Your task to perform on an android device: check battery use Image 0: 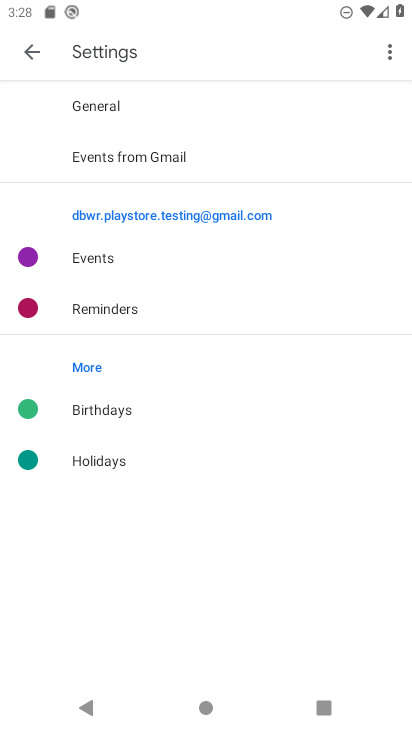
Step 0: press home button
Your task to perform on an android device: check battery use Image 1: 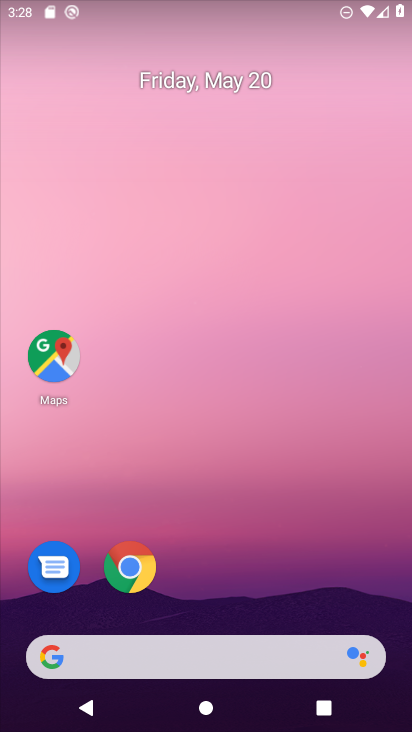
Step 1: drag from (216, 724) to (219, 186)
Your task to perform on an android device: check battery use Image 2: 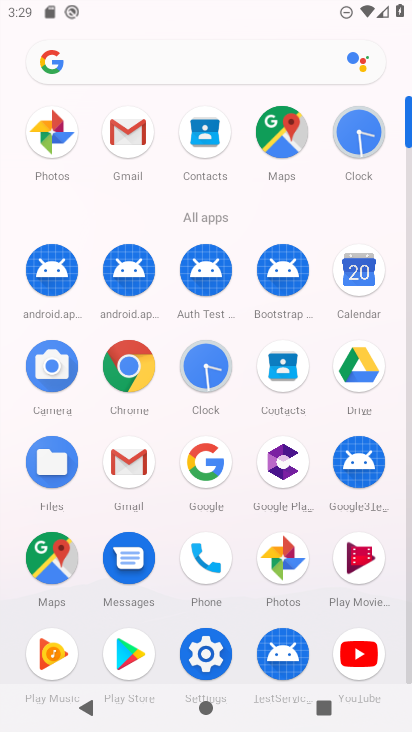
Step 2: click (207, 646)
Your task to perform on an android device: check battery use Image 3: 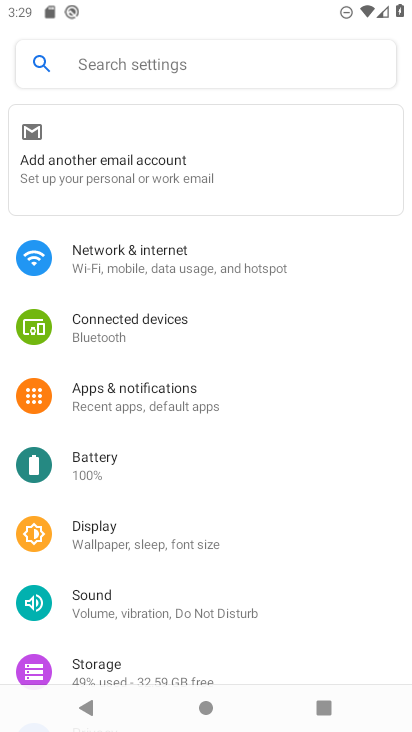
Step 3: click (88, 470)
Your task to perform on an android device: check battery use Image 4: 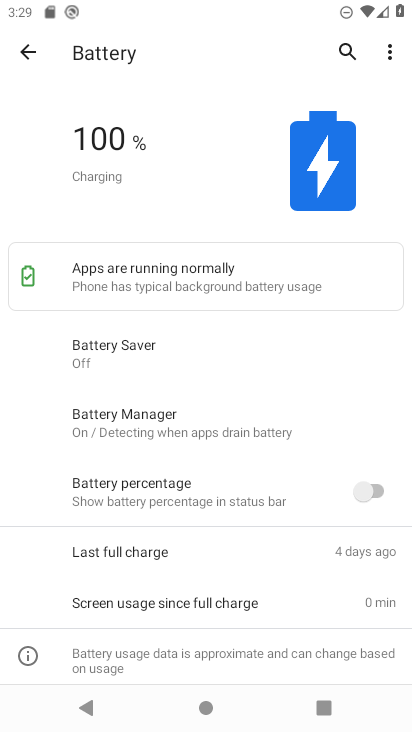
Step 4: click (389, 54)
Your task to perform on an android device: check battery use Image 5: 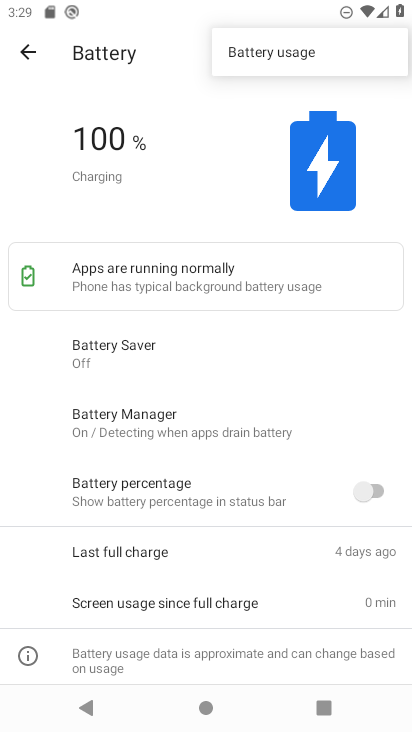
Step 5: click (276, 54)
Your task to perform on an android device: check battery use Image 6: 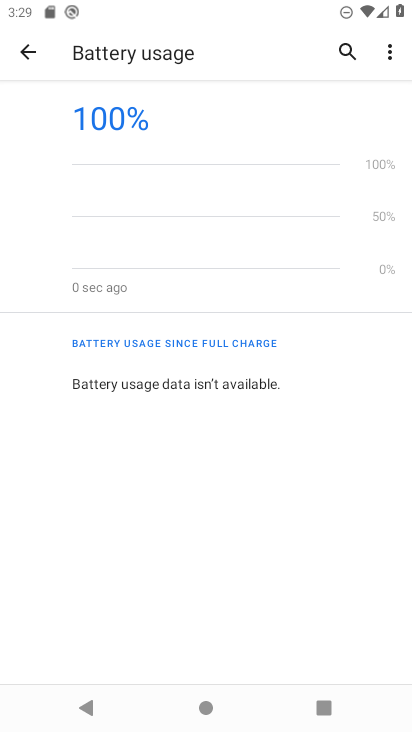
Step 6: task complete